Your task to perform on an android device: turn off notifications settings in the gmail app Image 0: 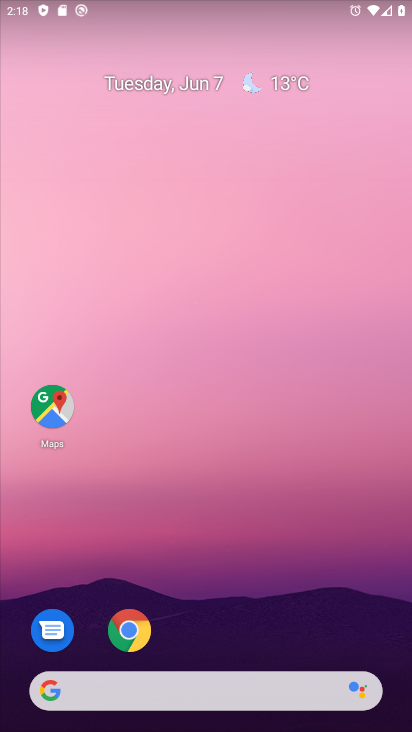
Step 0: drag from (389, 656) to (340, 125)
Your task to perform on an android device: turn off notifications settings in the gmail app Image 1: 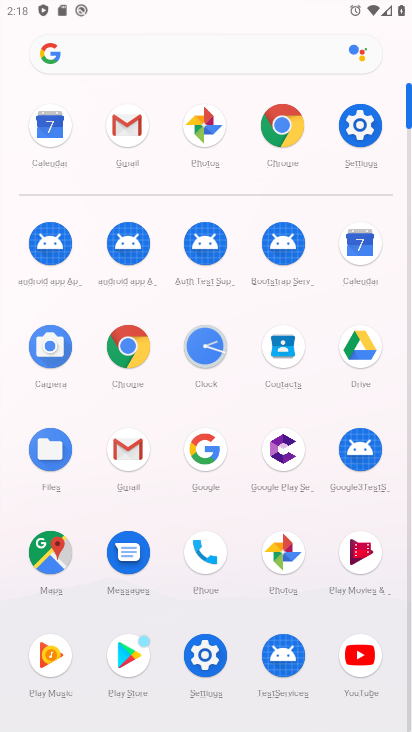
Step 1: click (129, 444)
Your task to perform on an android device: turn off notifications settings in the gmail app Image 2: 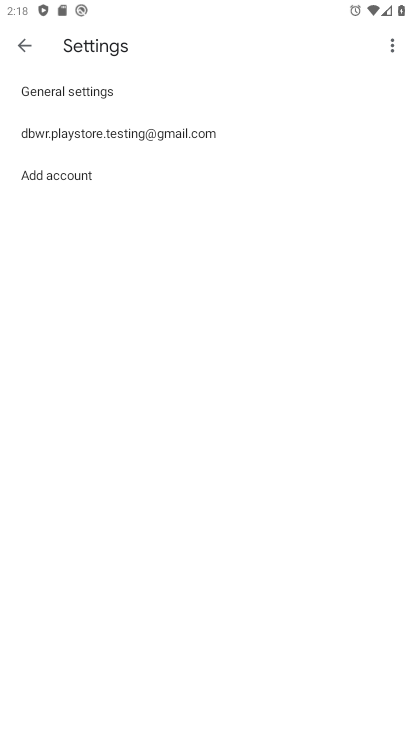
Step 2: click (56, 83)
Your task to perform on an android device: turn off notifications settings in the gmail app Image 3: 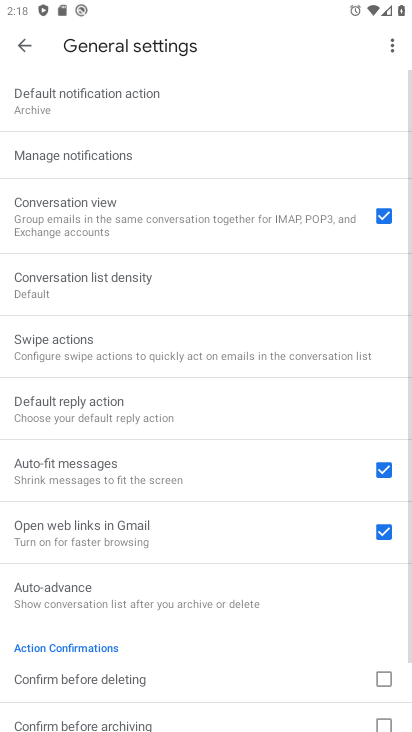
Step 3: click (70, 157)
Your task to perform on an android device: turn off notifications settings in the gmail app Image 4: 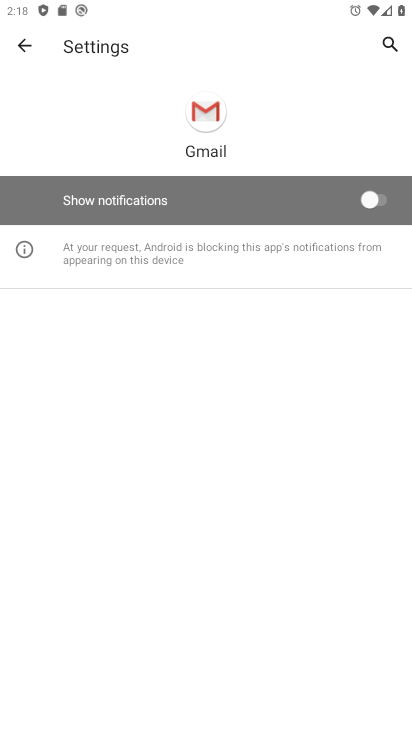
Step 4: task complete